Your task to perform on an android device: toggle sleep mode Image 0: 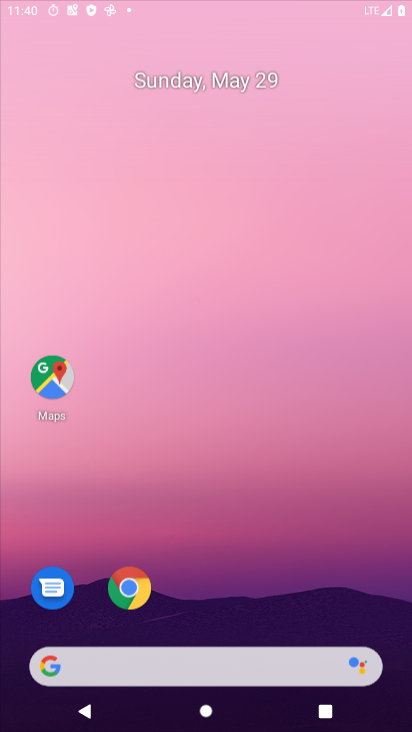
Step 0: drag from (288, 601) to (275, 72)
Your task to perform on an android device: toggle sleep mode Image 1: 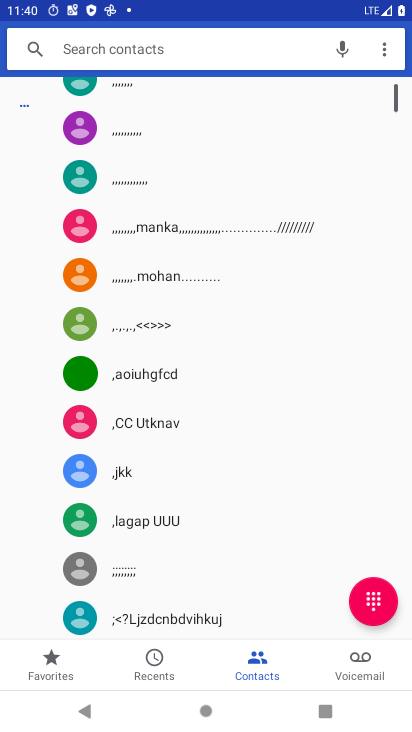
Step 1: press home button
Your task to perform on an android device: toggle sleep mode Image 2: 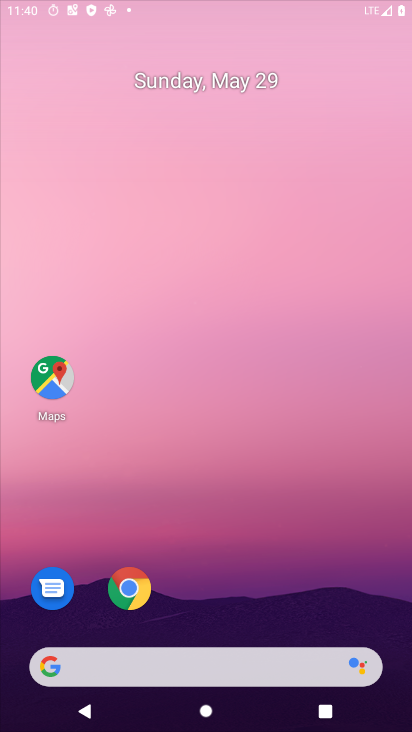
Step 2: drag from (219, 612) to (243, 180)
Your task to perform on an android device: toggle sleep mode Image 3: 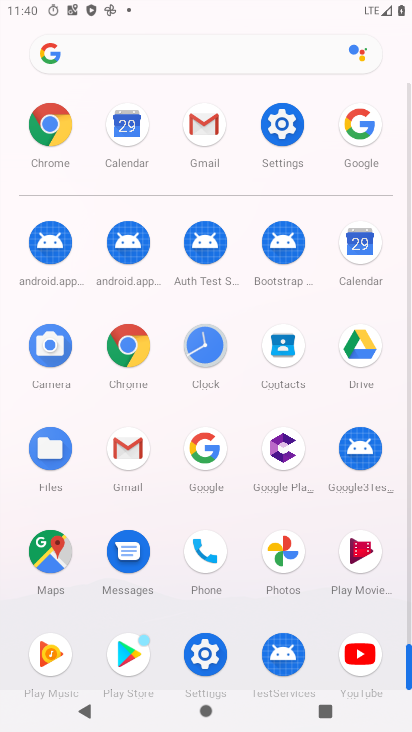
Step 3: click (279, 139)
Your task to perform on an android device: toggle sleep mode Image 4: 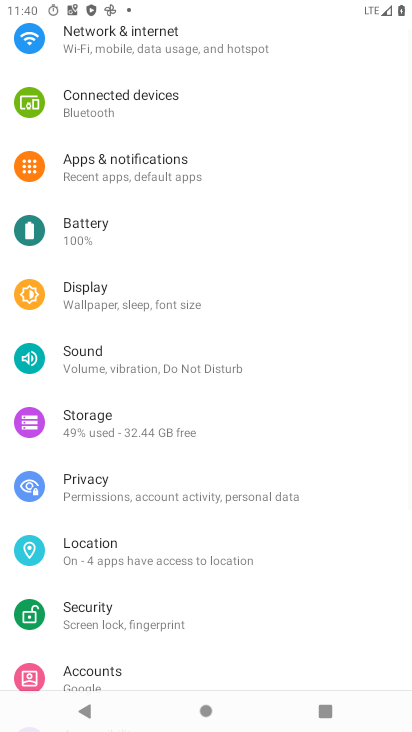
Step 4: task complete